Your task to perform on an android device: open device folders in google photos Image 0: 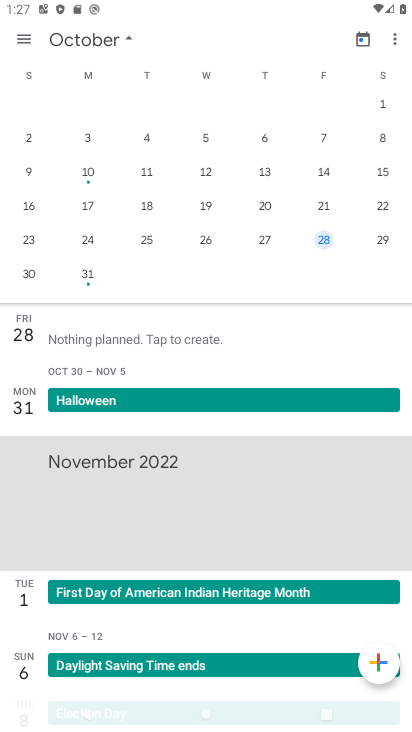
Step 0: press home button
Your task to perform on an android device: open device folders in google photos Image 1: 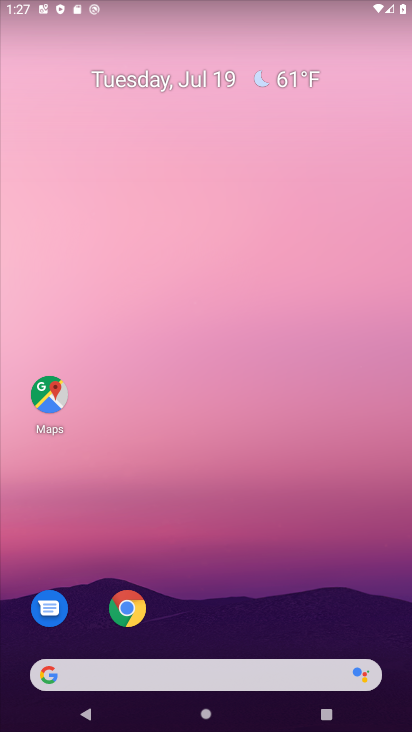
Step 1: drag from (295, 562) to (338, 49)
Your task to perform on an android device: open device folders in google photos Image 2: 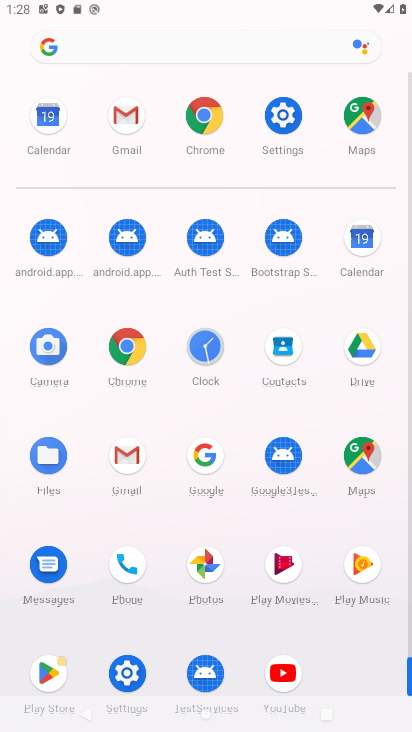
Step 2: click (200, 580)
Your task to perform on an android device: open device folders in google photos Image 3: 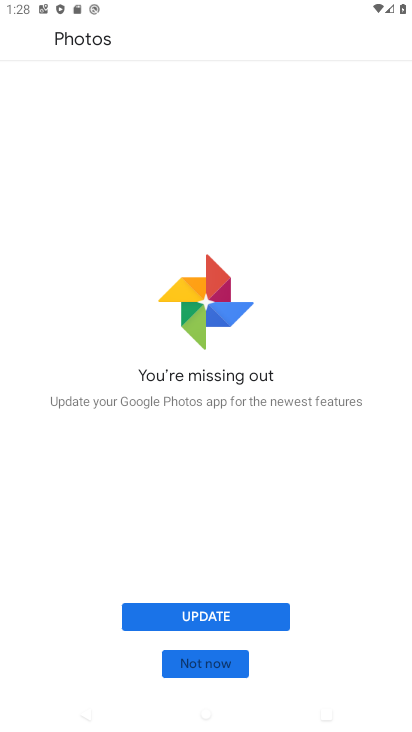
Step 3: click (204, 610)
Your task to perform on an android device: open device folders in google photos Image 4: 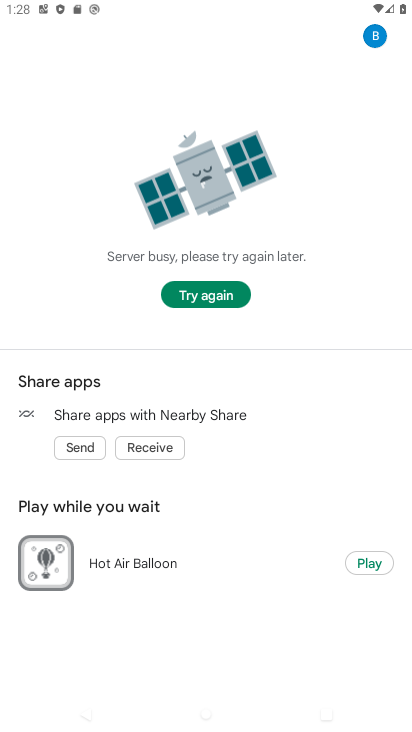
Step 4: click (217, 279)
Your task to perform on an android device: open device folders in google photos Image 5: 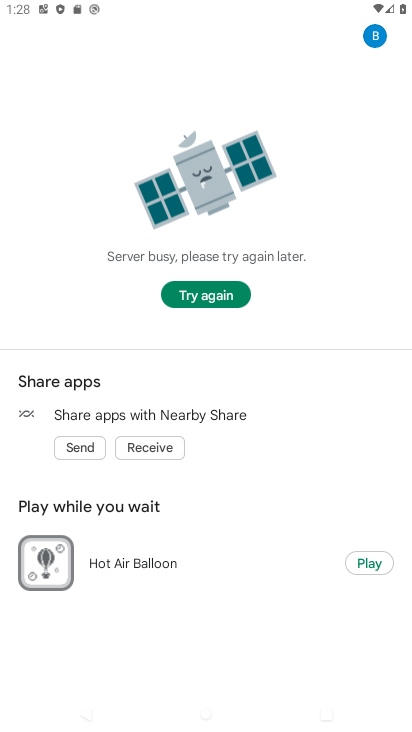
Step 5: task complete